Your task to perform on an android device: Show the shopping cart on amazon. Add acer nitro to the cart on amazon, then select checkout. Image 0: 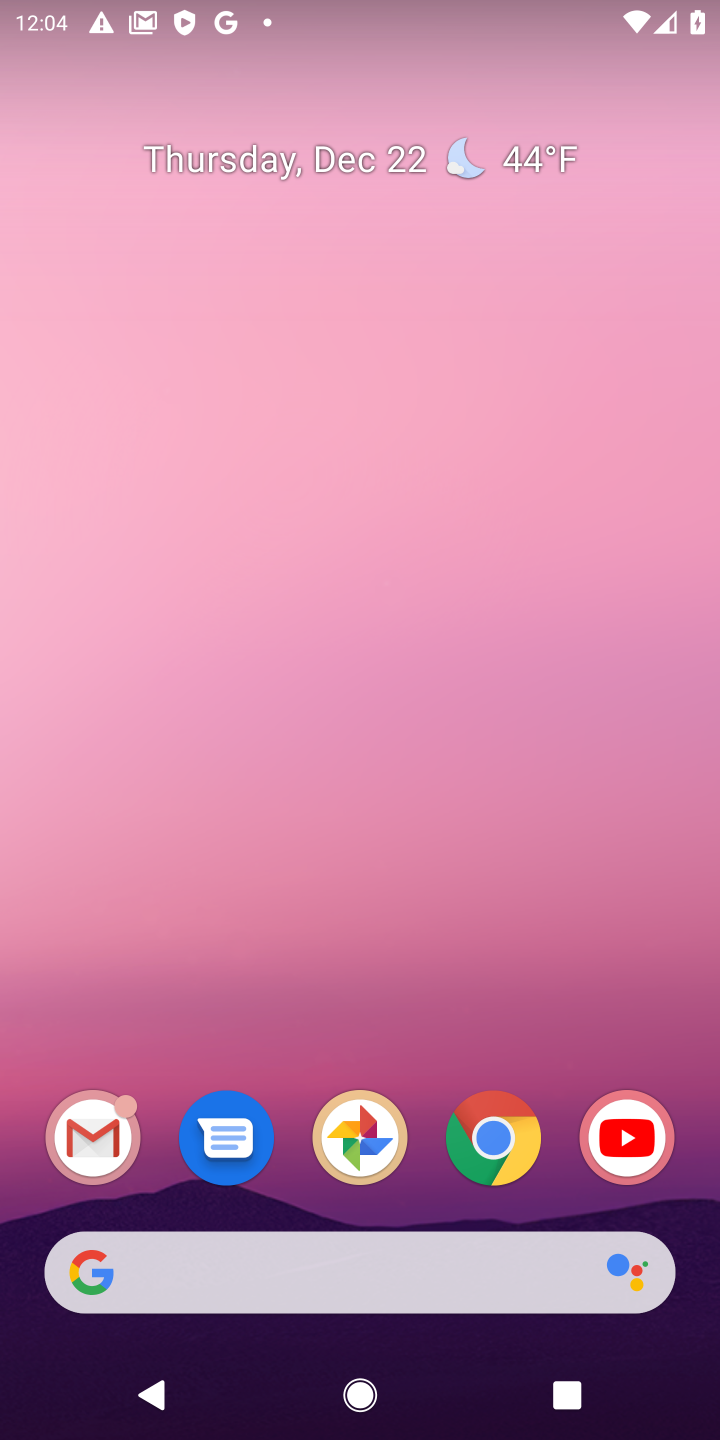
Step 0: click (510, 1132)
Your task to perform on an android device: Show the shopping cart on amazon. Add acer nitro to the cart on amazon, then select checkout. Image 1: 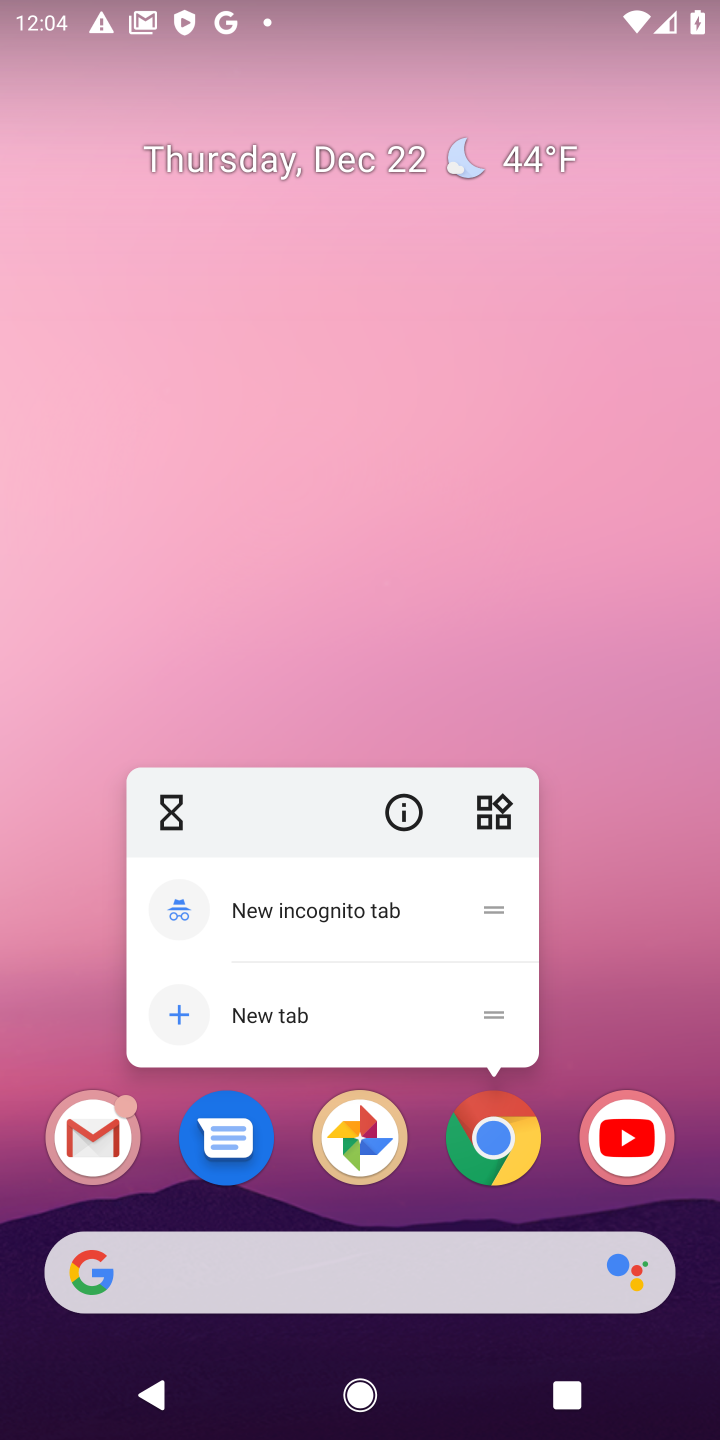
Step 1: click (502, 1146)
Your task to perform on an android device: Show the shopping cart on amazon. Add acer nitro to the cart on amazon, then select checkout. Image 2: 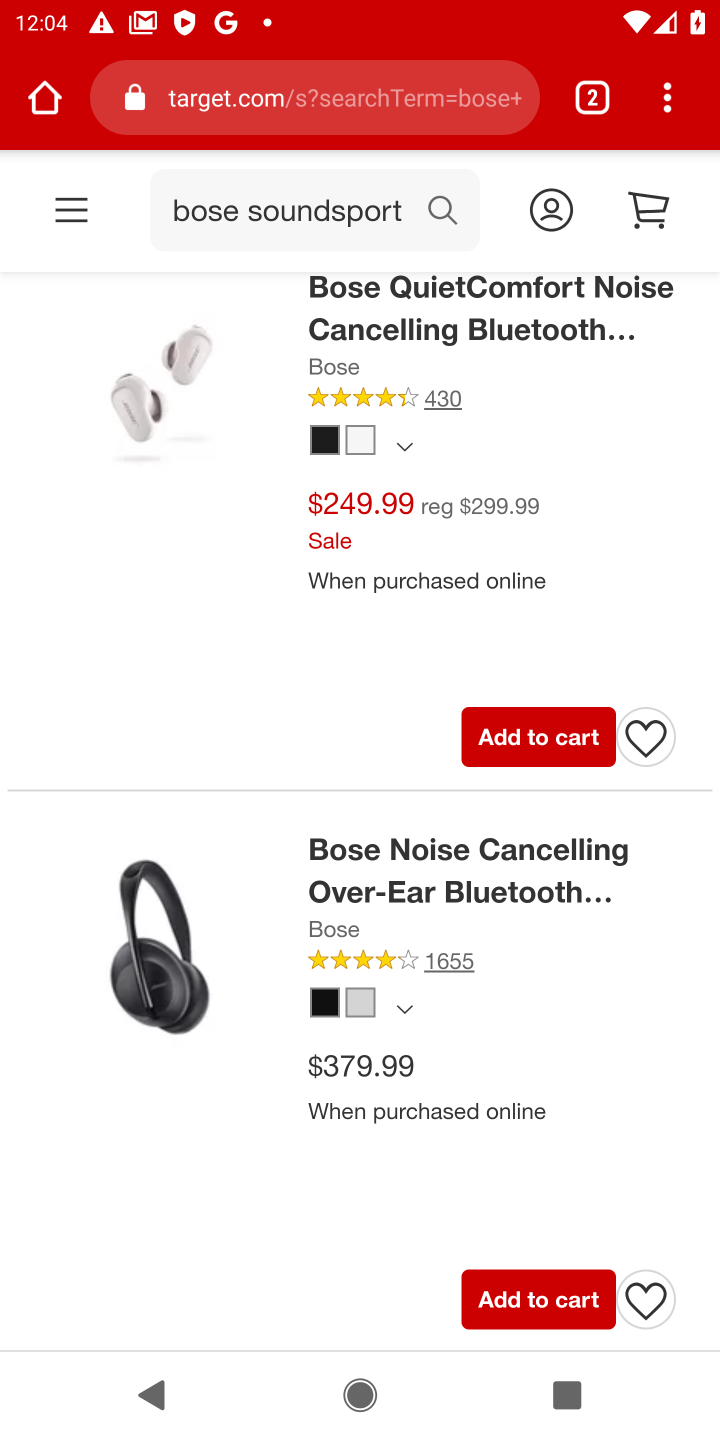
Step 2: click (242, 95)
Your task to perform on an android device: Show the shopping cart on amazon. Add acer nitro to the cart on amazon, then select checkout. Image 3: 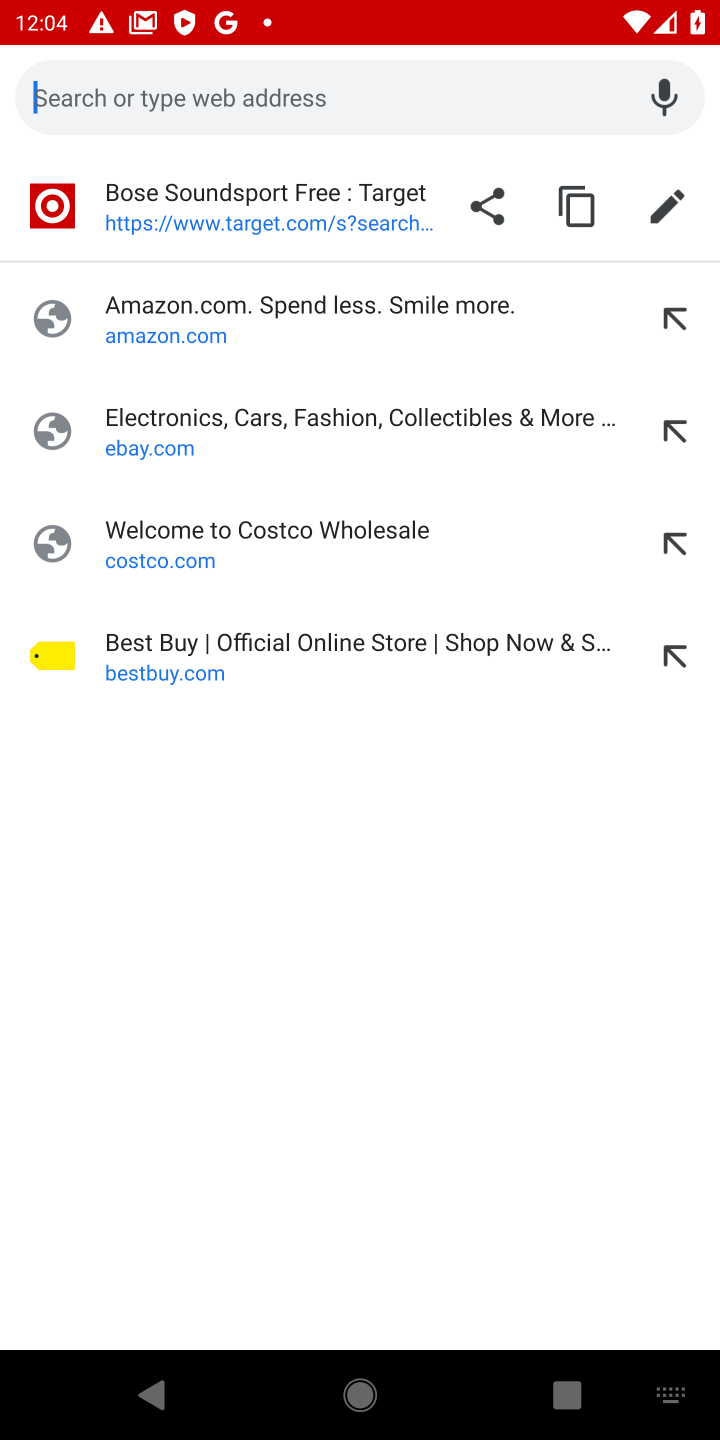
Step 3: click (151, 312)
Your task to perform on an android device: Show the shopping cart on amazon. Add acer nitro to the cart on amazon, then select checkout. Image 4: 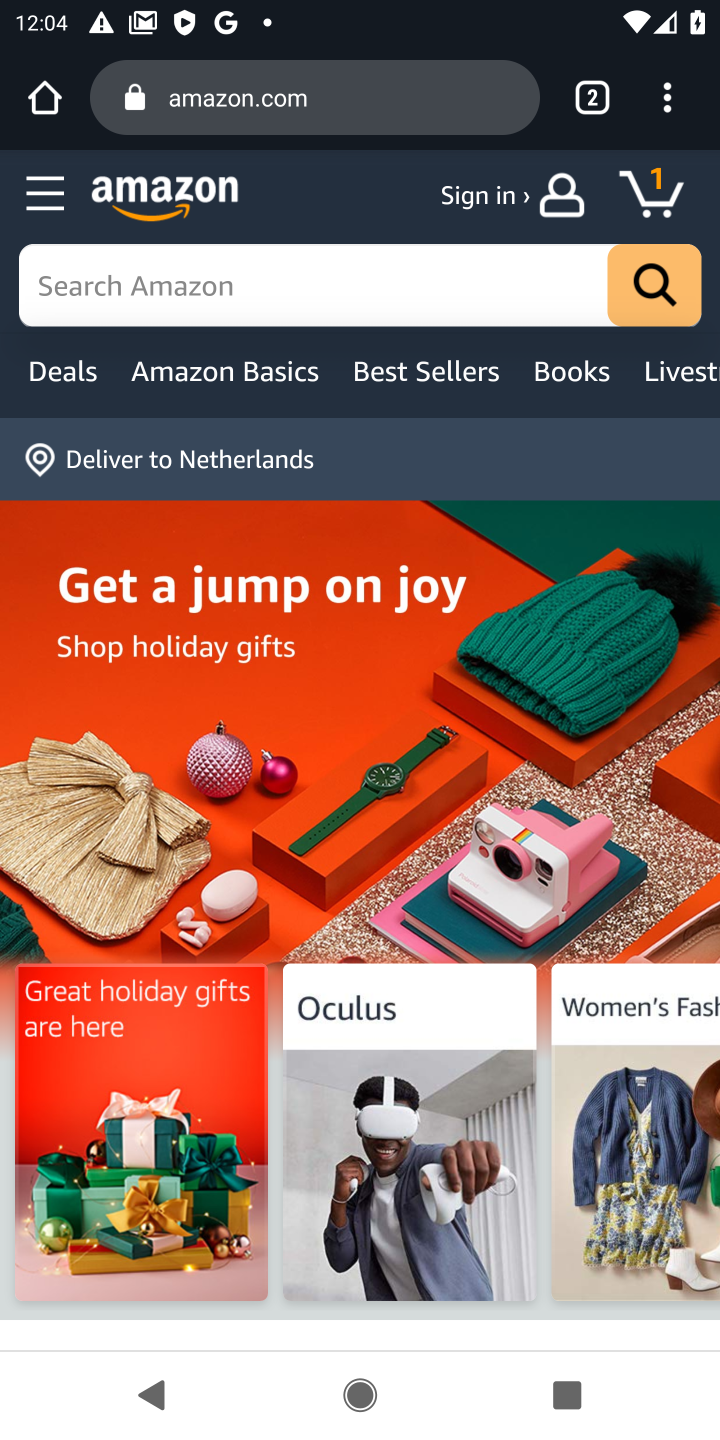
Step 4: click (665, 188)
Your task to perform on an android device: Show the shopping cart on amazon. Add acer nitro to the cart on amazon, then select checkout. Image 5: 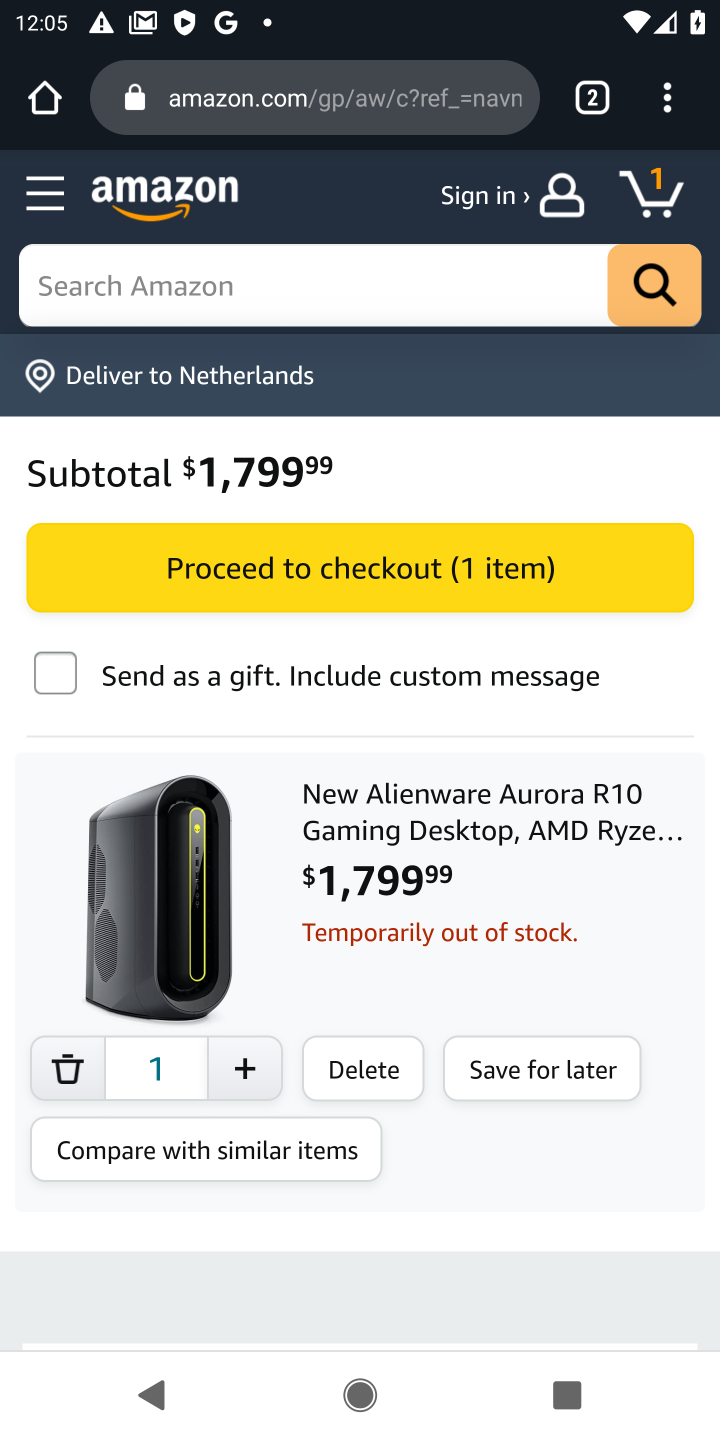
Step 5: click (119, 286)
Your task to perform on an android device: Show the shopping cart on amazon. Add acer nitro to the cart on amazon, then select checkout. Image 6: 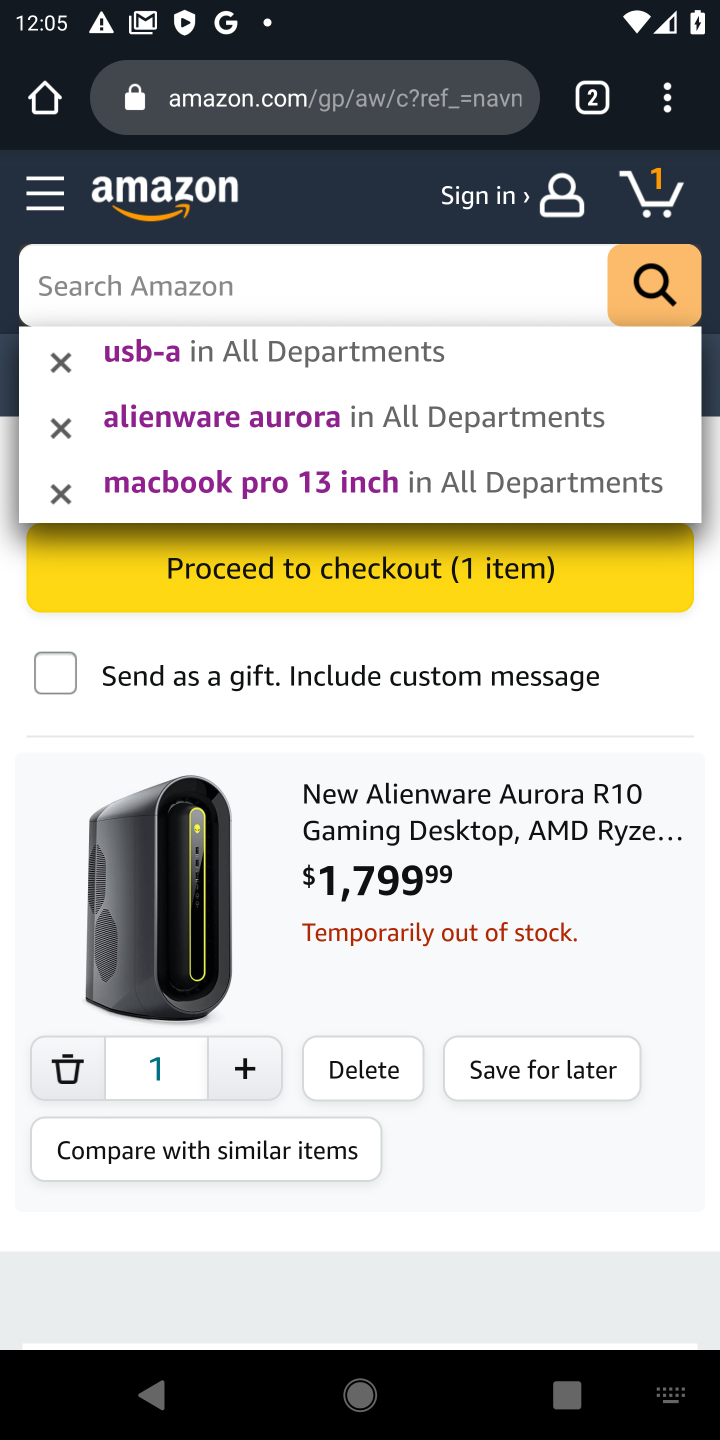
Step 6: type "acer nitro "
Your task to perform on an android device: Show the shopping cart on amazon. Add acer nitro to the cart on amazon, then select checkout. Image 7: 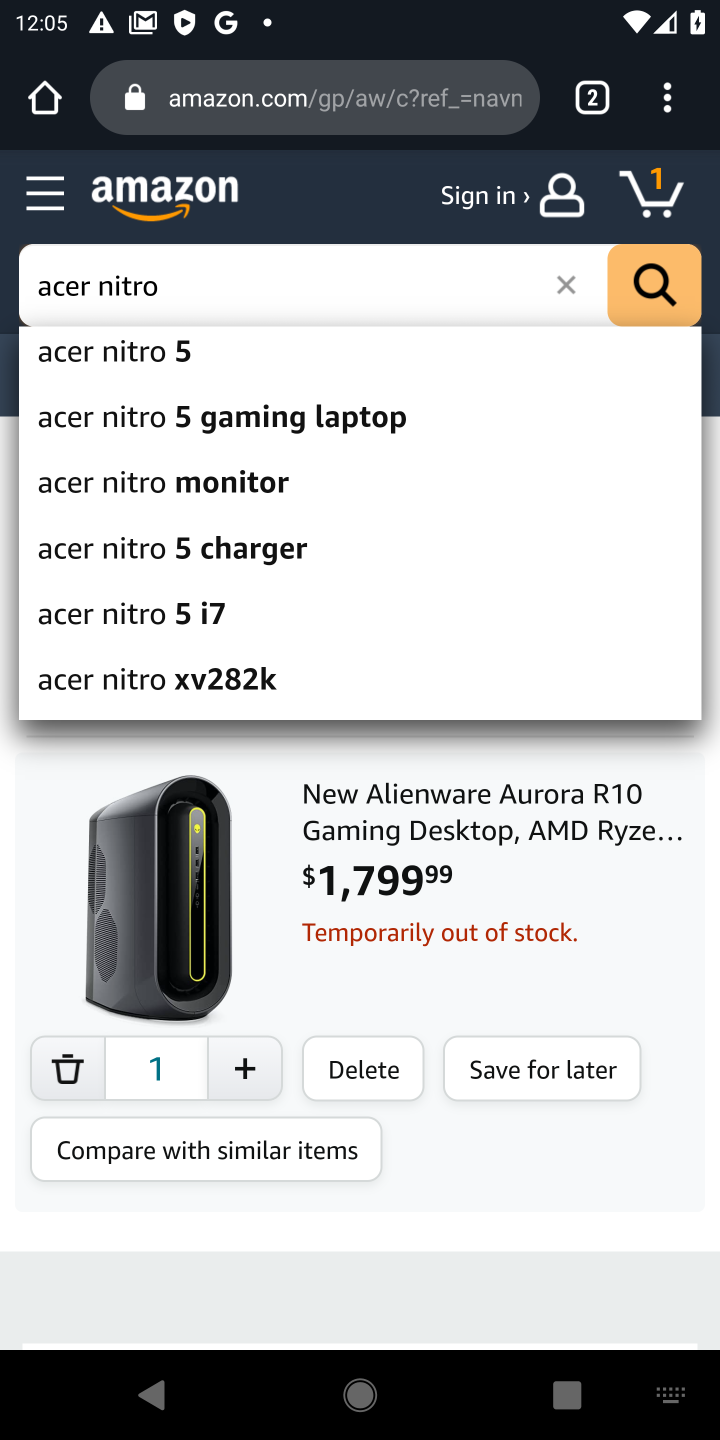
Step 7: click (104, 369)
Your task to perform on an android device: Show the shopping cart on amazon. Add acer nitro to the cart on amazon, then select checkout. Image 8: 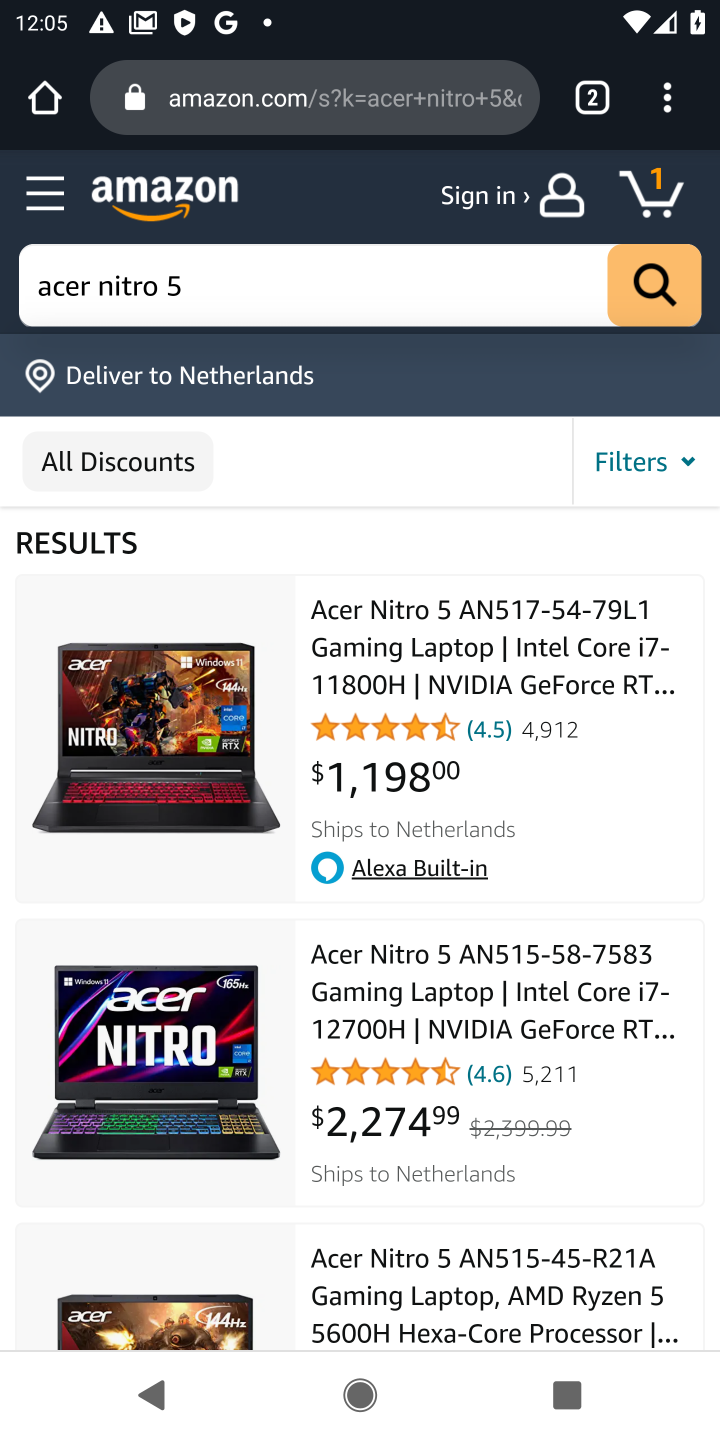
Step 8: click (376, 678)
Your task to perform on an android device: Show the shopping cart on amazon. Add acer nitro to the cart on amazon, then select checkout. Image 9: 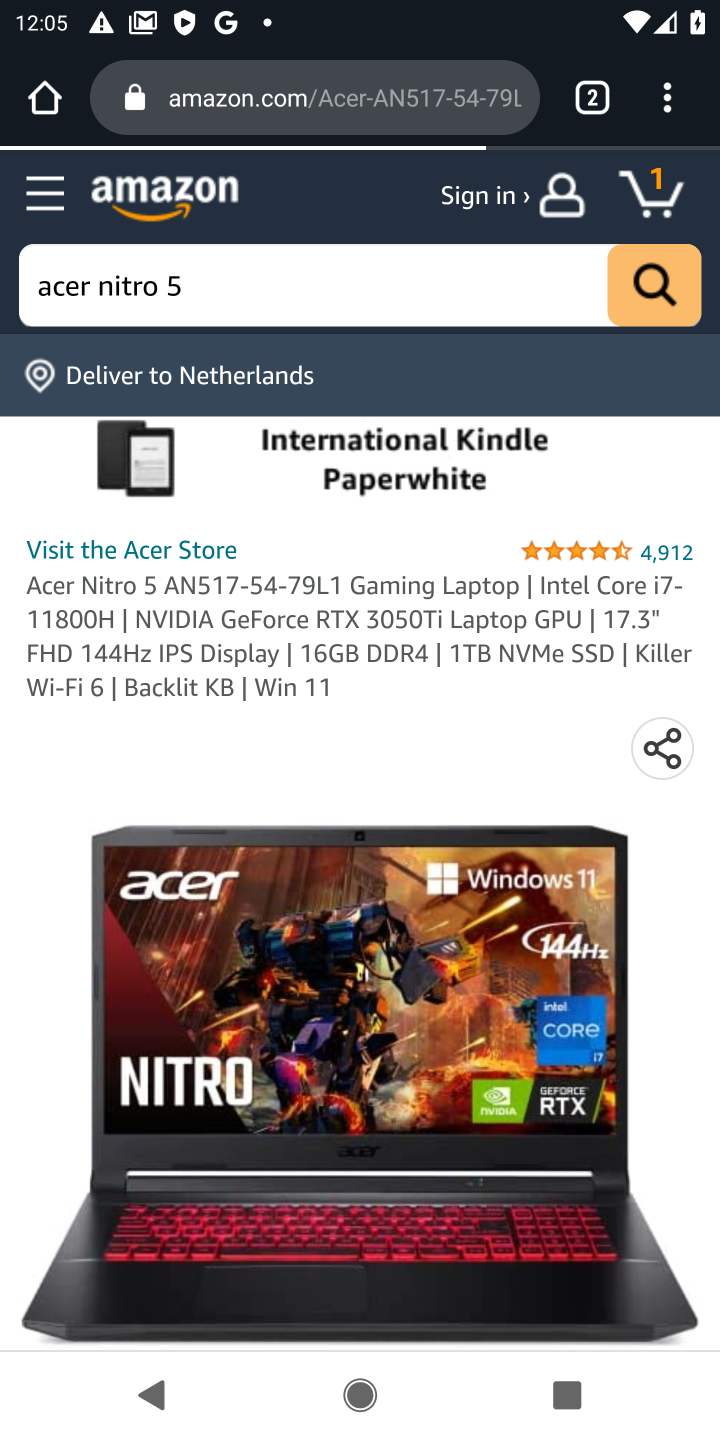
Step 9: drag from (303, 910) to (311, 498)
Your task to perform on an android device: Show the shopping cart on amazon. Add acer nitro to the cart on amazon, then select checkout. Image 10: 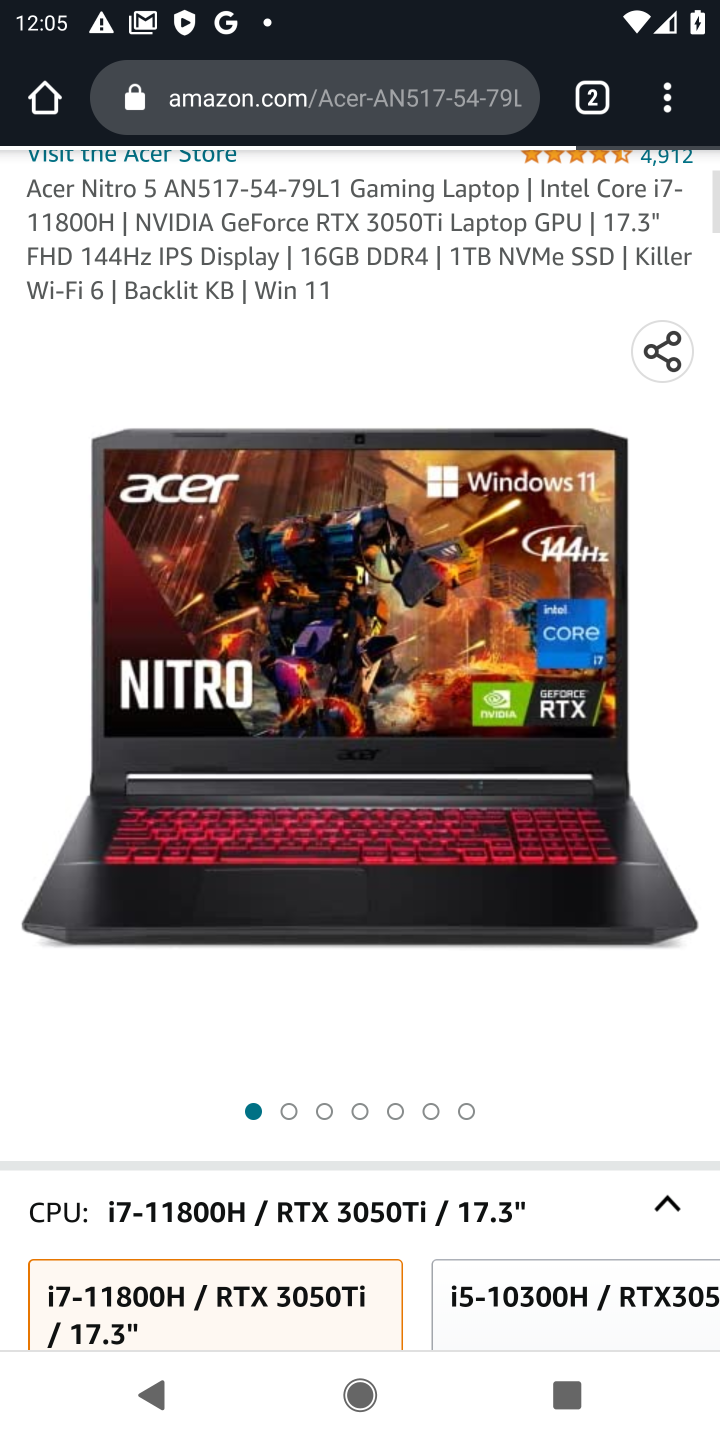
Step 10: drag from (357, 987) to (338, 479)
Your task to perform on an android device: Show the shopping cart on amazon. Add acer nitro to the cart on amazon, then select checkout. Image 11: 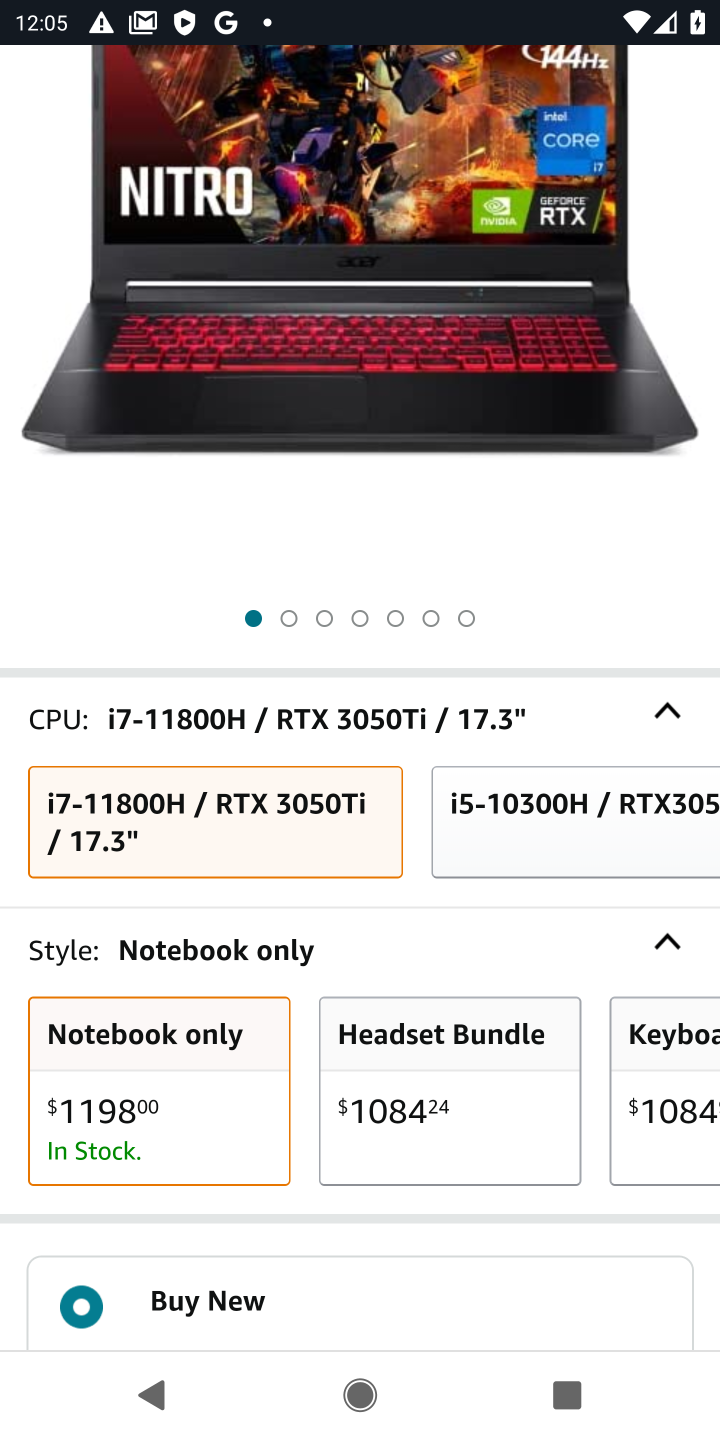
Step 11: drag from (392, 902) to (349, 455)
Your task to perform on an android device: Show the shopping cart on amazon. Add acer nitro to the cart on amazon, then select checkout. Image 12: 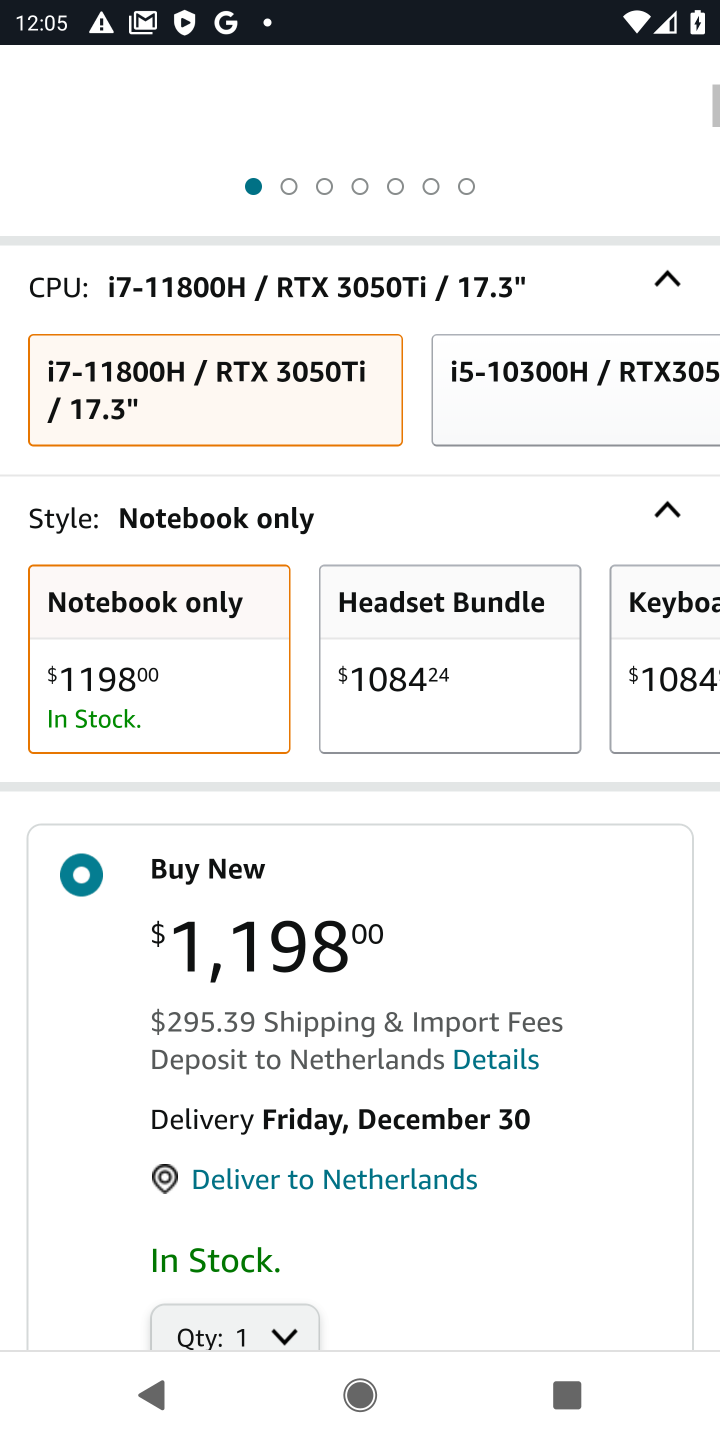
Step 12: drag from (335, 1046) to (314, 533)
Your task to perform on an android device: Show the shopping cart on amazon. Add acer nitro to the cart on amazon, then select checkout. Image 13: 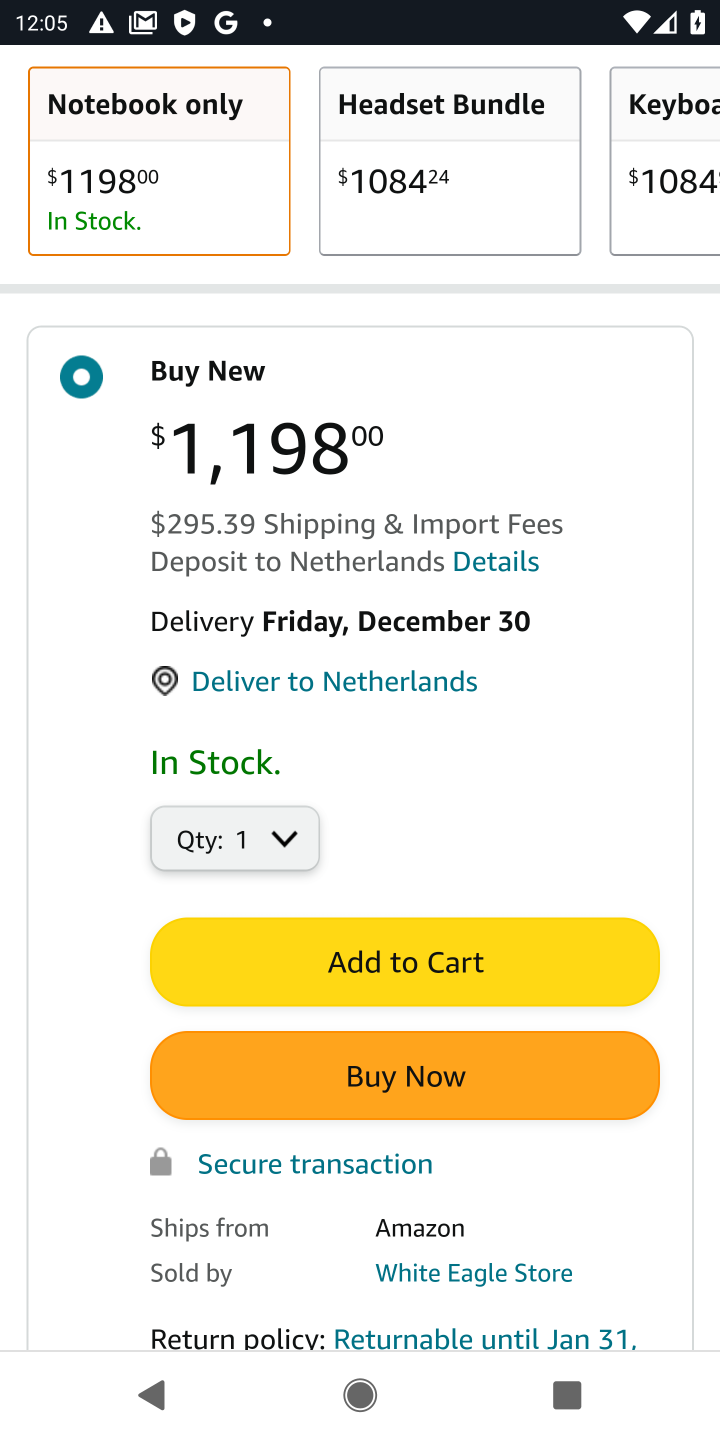
Step 13: click (361, 966)
Your task to perform on an android device: Show the shopping cart on amazon. Add acer nitro to the cart on amazon, then select checkout. Image 14: 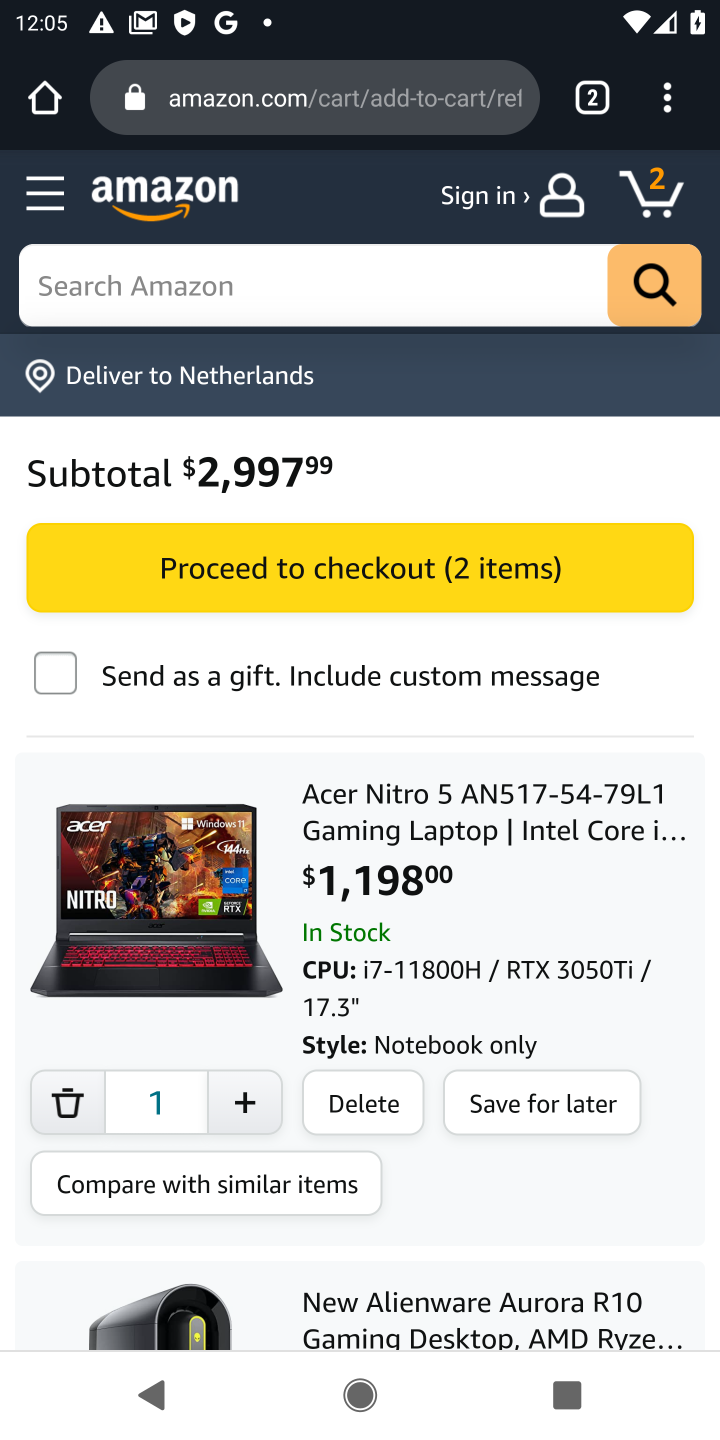
Step 14: click (385, 566)
Your task to perform on an android device: Show the shopping cart on amazon. Add acer nitro to the cart on amazon, then select checkout. Image 15: 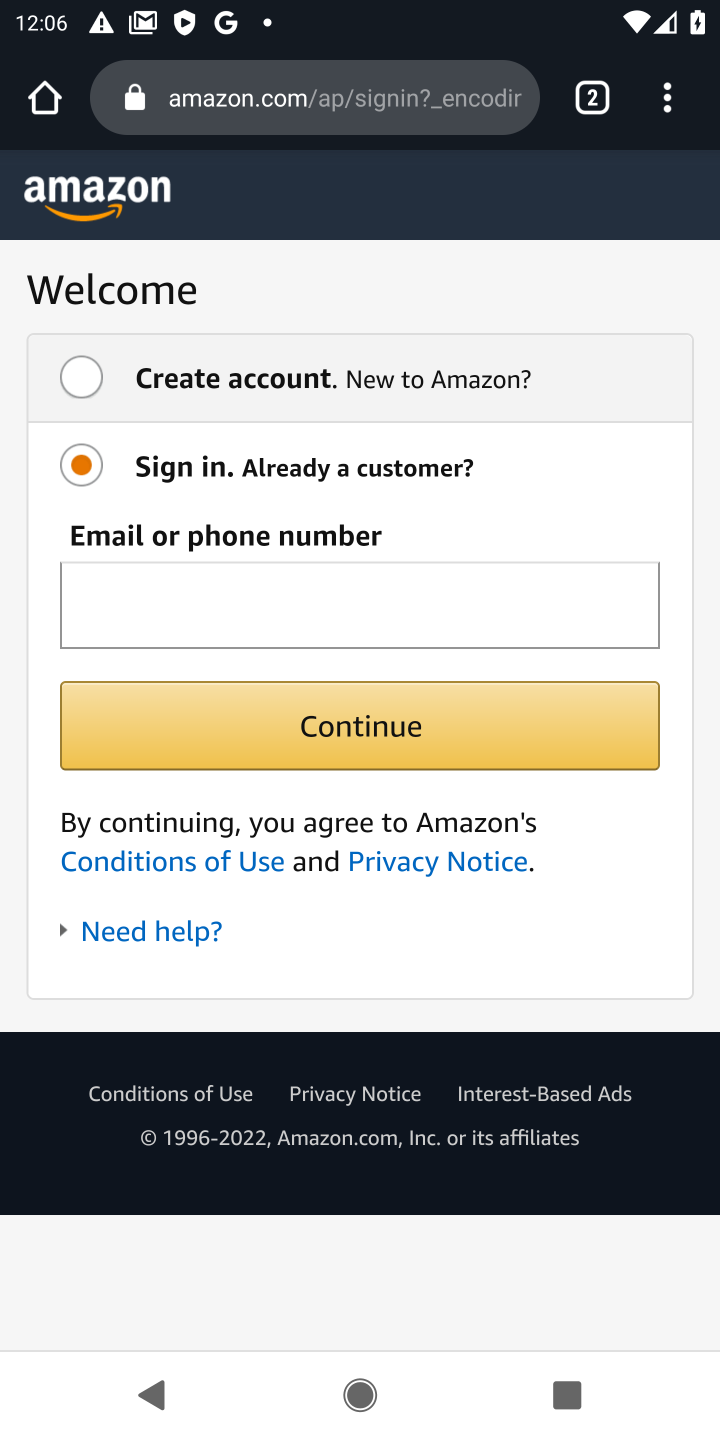
Step 15: task complete